Your task to perform on an android device: toggle priority inbox in the gmail app Image 0: 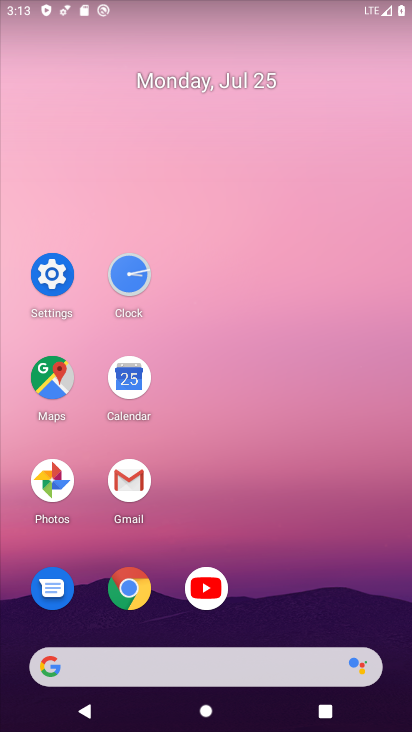
Step 0: click (127, 477)
Your task to perform on an android device: toggle priority inbox in the gmail app Image 1: 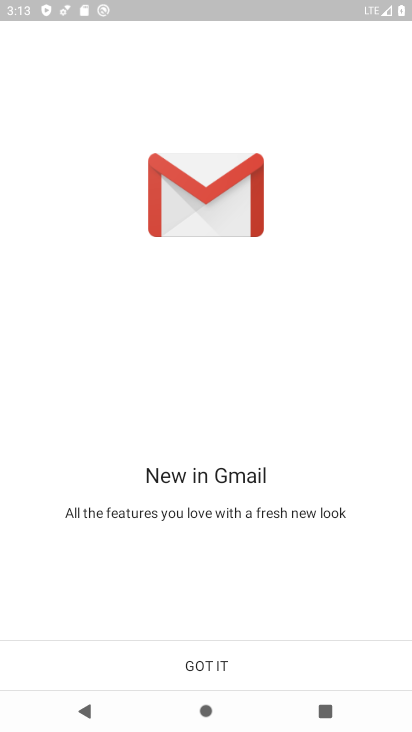
Step 1: click (210, 669)
Your task to perform on an android device: toggle priority inbox in the gmail app Image 2: 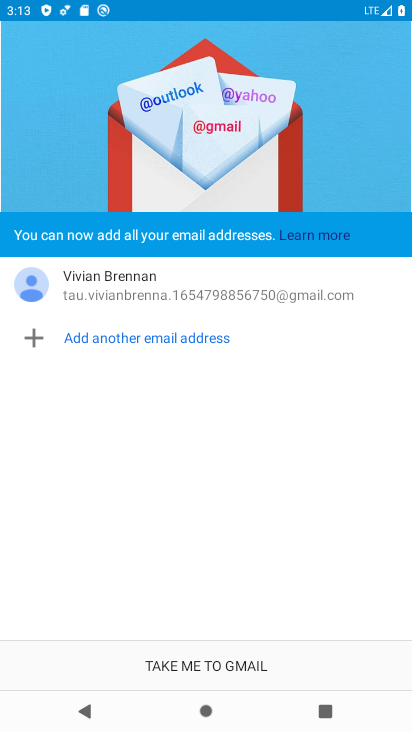
Step 2: click (210, 669)
Your task to perform on an android device: toggle priority inbox in the gmail app Image 3: 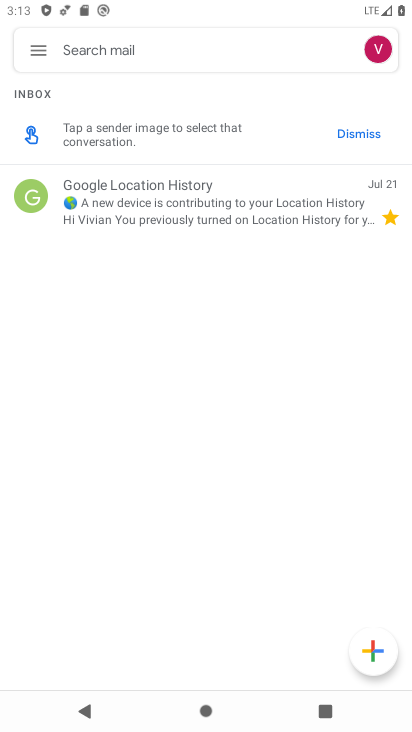
Step 3: click (32, 51)
Your task to perform on an android device: toggle priority inbox in the gmail app Image 4: 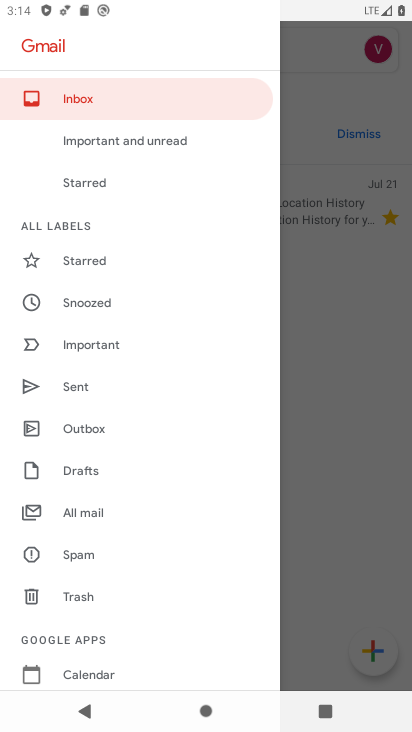
Step 4: drag from (137, 571) to (130, 175)
Your task to perform on an android device: toggle priority inbox in the gmail app Image 5: 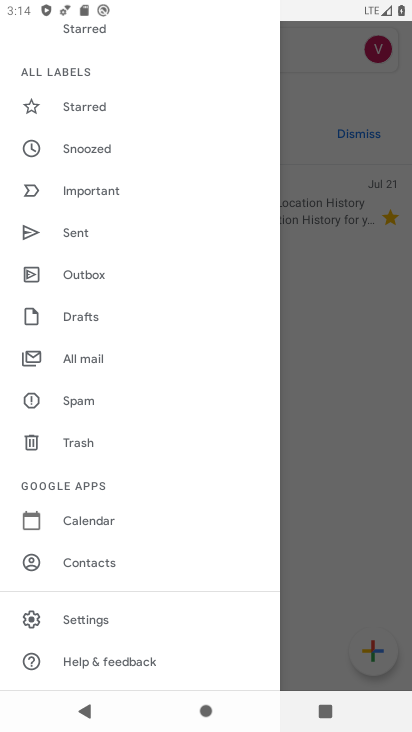
Step 5: click (90, 612)
Your task to perform on an android device: toggle priority inbox in the gmail app Image 6: 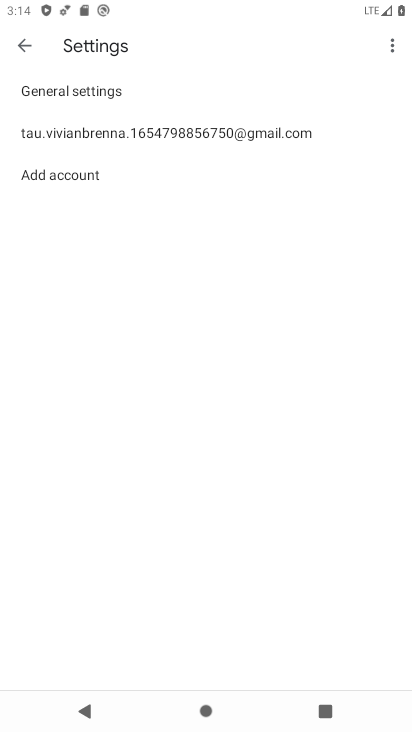
Step 6: click (71, 131)
Your task to perform on an android device: toggle priority inbox in the gmail app Image 7: 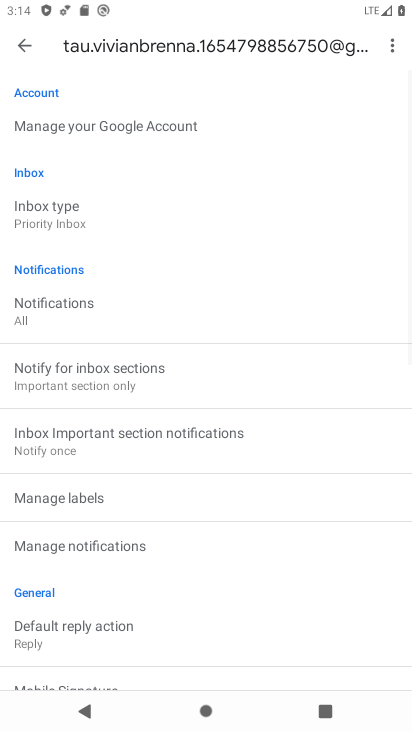
Step 7: click (49, 205)
Your task to perform on an android device: toggle priority inbox in the gmail app Image 8: 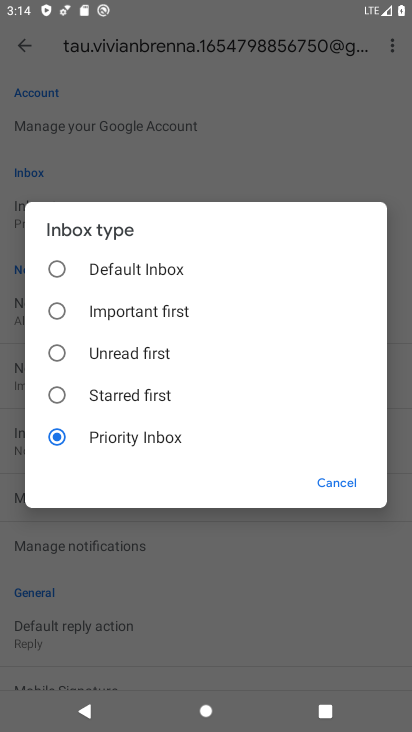
Step 8: click (55, 274)
Your task to perform on an android device: toggle priority inbox in the gmail app Image 9: 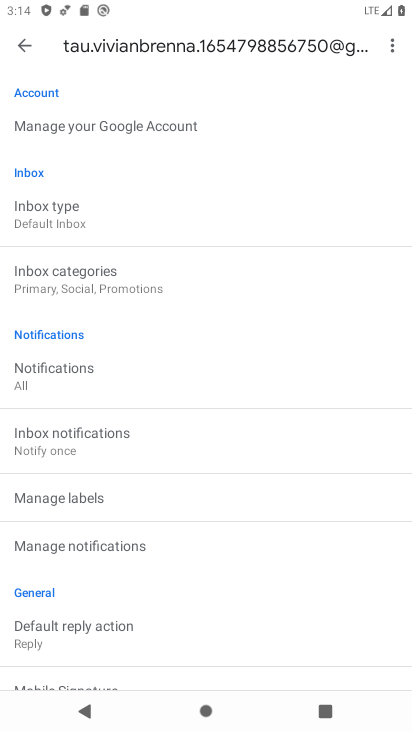
Step 9: task complete